Your task to perform on an android device: Go to CNN.com Image 0: 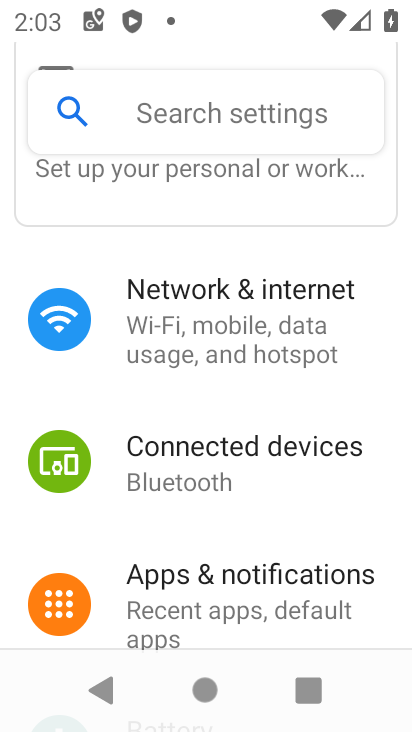
Step 0: press home button
Your task to perform on an android device: Go to CNN.com Image 1: 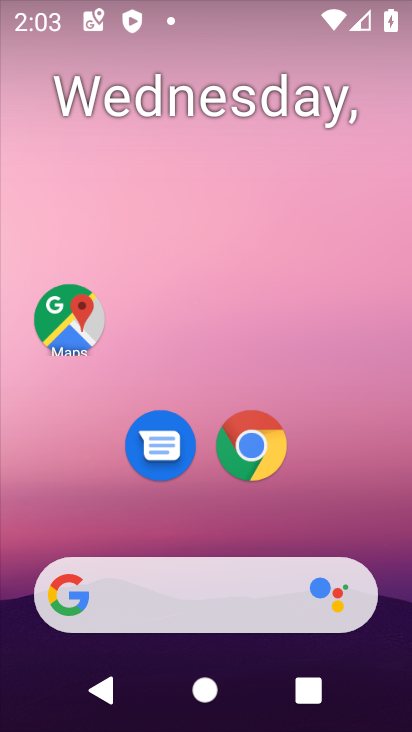
Step 1: drag from (213, 542) to (252, 470)
Your task to perform on an android device: Go to CNN.com Image 2: 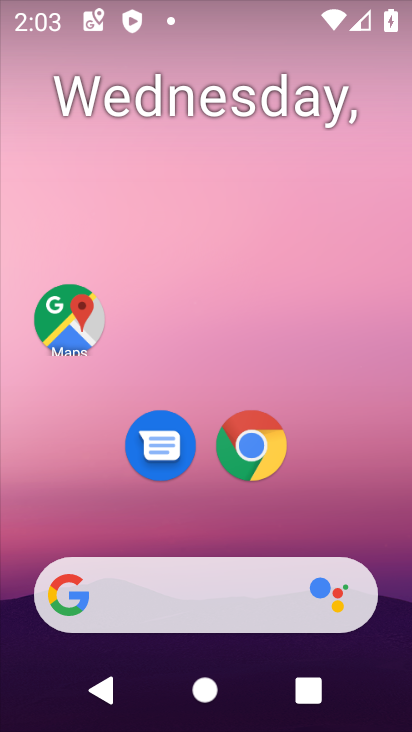
Step 2: click (271, 454)
Your task to perform on an android device: Go to CNN.com Image 3: 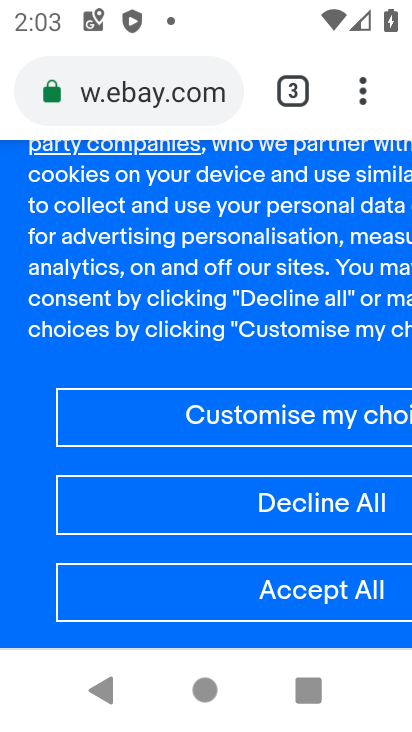
Step 3: click (286, 83)
Your task to perform on an android device: Go to CNN.com Image 4: 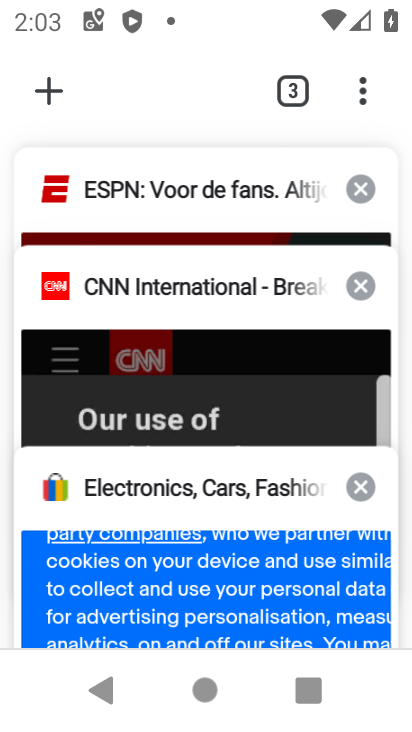
Step 4: click (178, 274)
Your task to perform on an android device: Go to CNN.com Image 5: 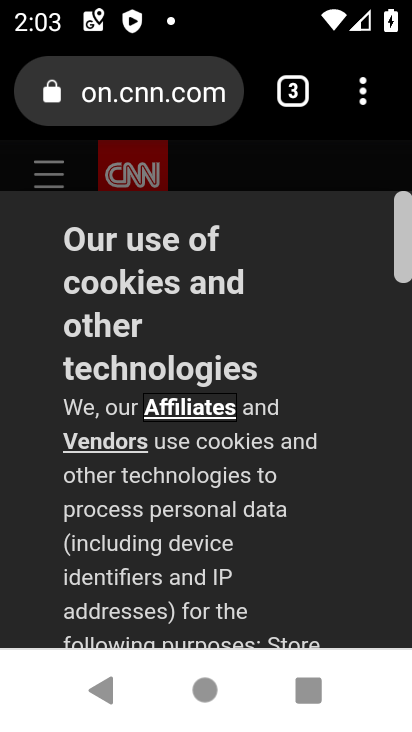
Step 5: task complete